Your task to perform on an android device: set default search engine in the chrome app Image 0: 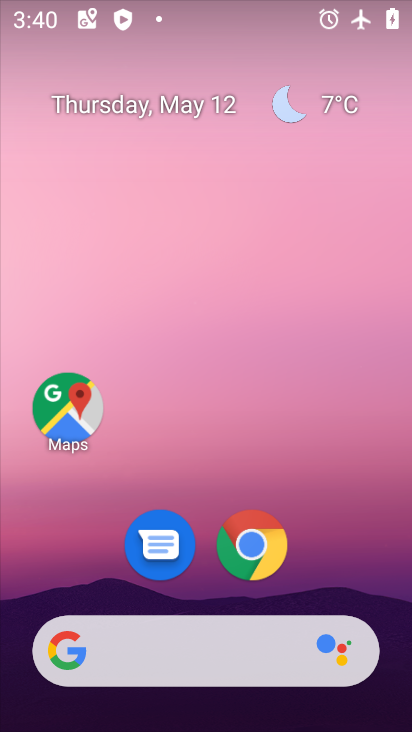
Step 0: click (245, 545)
Your task to perform on an android device: set default search engine in the chrome app Image 1: 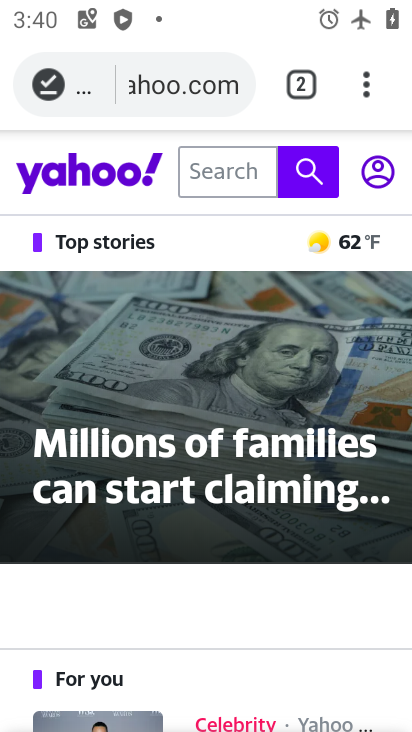
Step 1: click (369, 91)
Your task to perform on an android device: set default search engine in the chrome app Image 2: 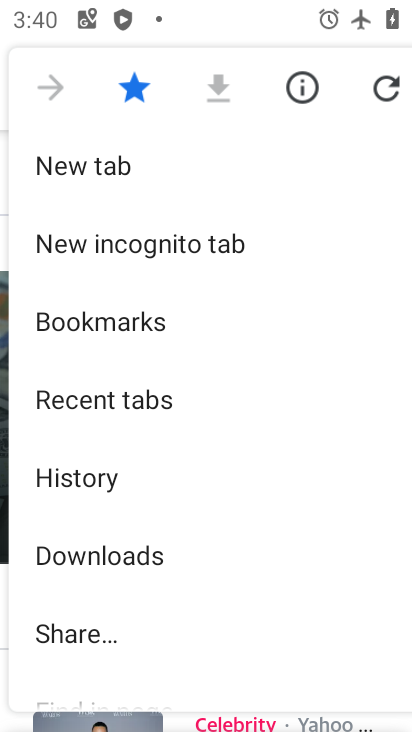
Step 2: drag from (153, 604) to (264, 180)
Your task to perform on an android device: set default search engine in the chrome app Image 3: 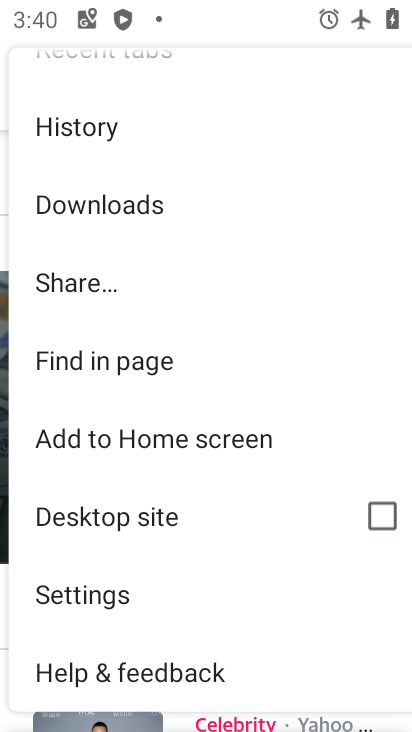
Step 3: click (92, 589)
Your task to perform on an android device: set default search engine in the chrome app Image 4: 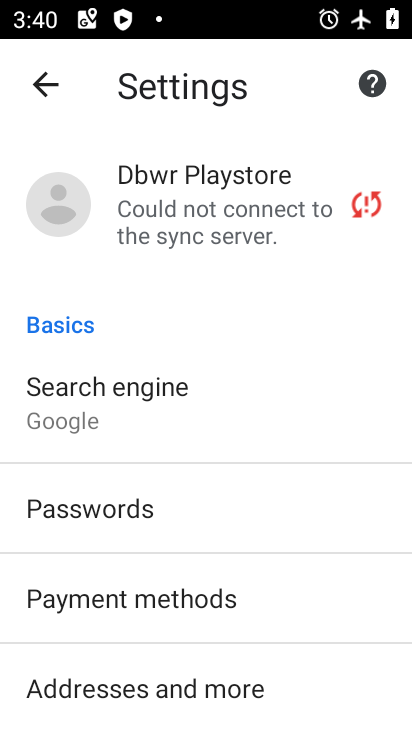
Step 4: click (57, 387)
Your task to perform on an android device: set default search engine in the chrome app Image 5: 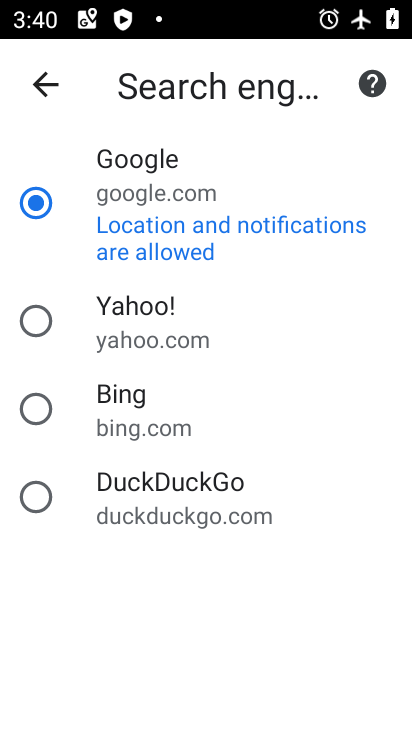
Step 5: click (47, 311)
Your task to perform on an android device: set default search engine in the chrome app Image 6: 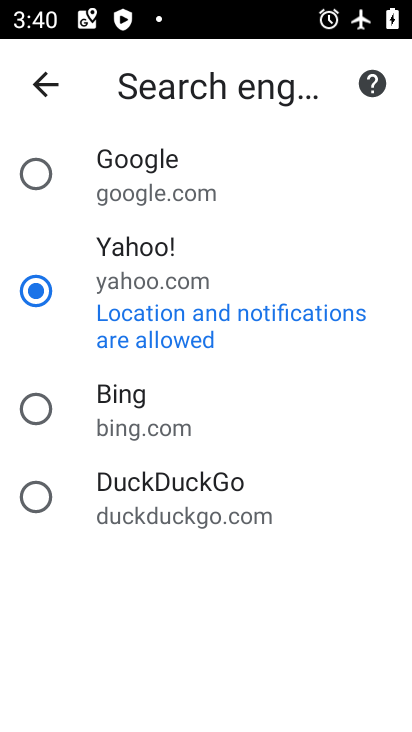
Step 6: task complete